Your task to perform on an android device: clear all cookies in the chrome app Image 0: 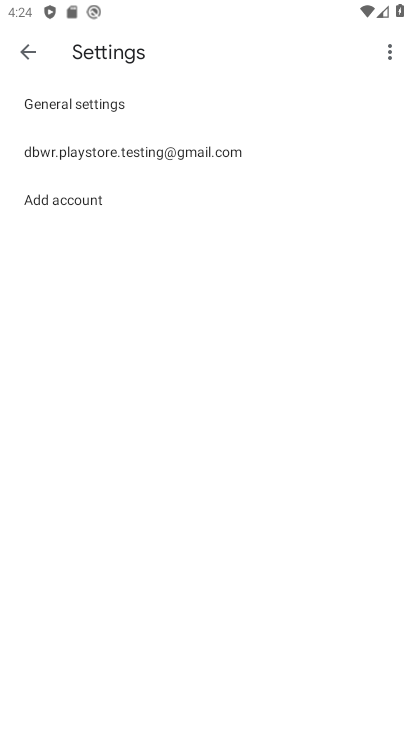
Step 0: press home button
Your task to perform on an android device: clear all cookies in the chrome app Image 1: 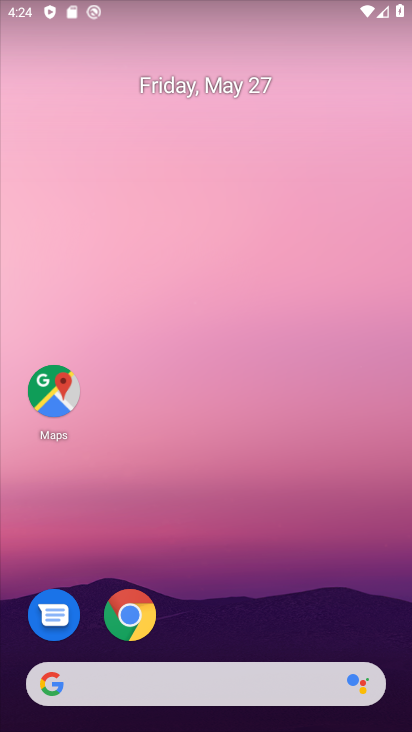
Step 1: click (153, 596)
Your task to perform on an android device: clear all cookies in the chrome app Image 2: 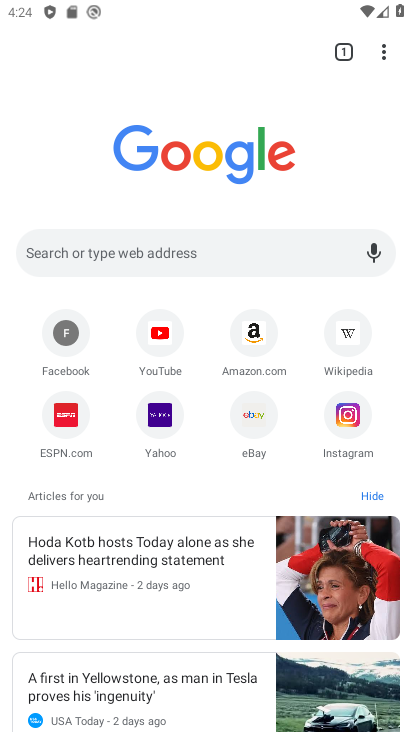
Step 2: click (376, 59)
Your task to perform on an android device: clear all cookies in the chrome app Image 3: 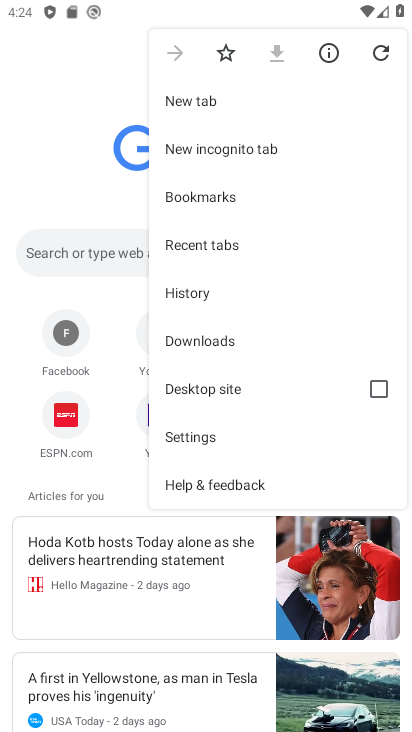
Step 3: click (208, 297)
Your task to perform on an android device: clear all cookies in the chrome app Image 4: 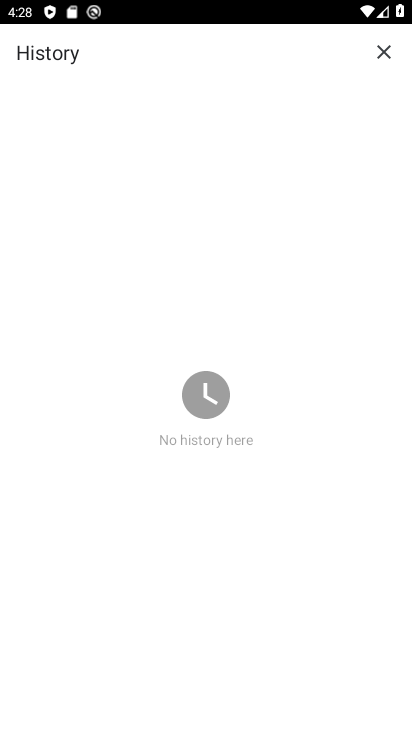
Step 4: task complete